Your task to perform on an android device: stop showing notifications on the lock screen Image 0: 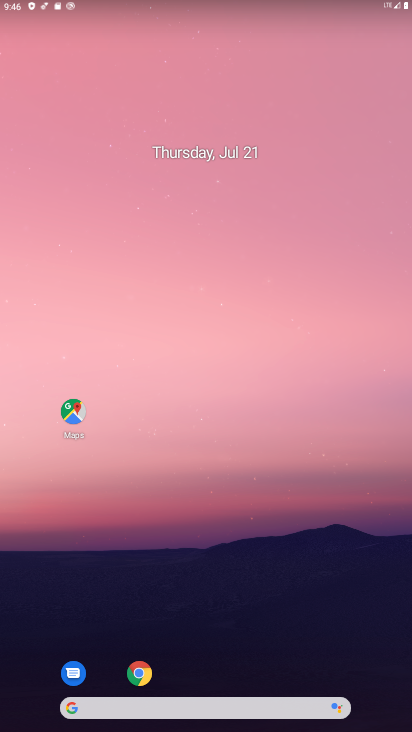
Step 0: drag from (233, 719) to (232, 208)
Your task to perform on an android device: stop showing notifications on the lock screen Image 1: 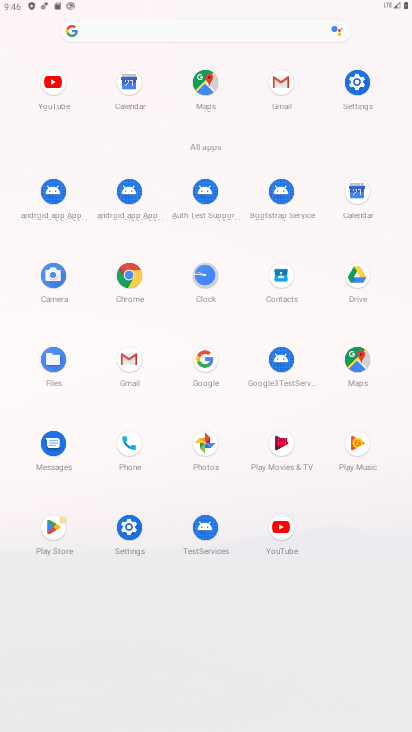
Step 1: click (126, 526)
Your task to perform on an android device: stop showing notifications on the lock screen Image 2: 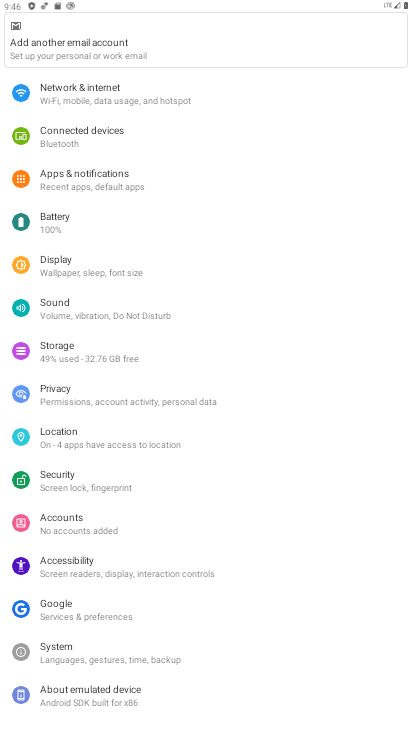
Step 2: click (87, 181)
Your task to perform on an android device: stop showing notifications on the lock screen Image 3: 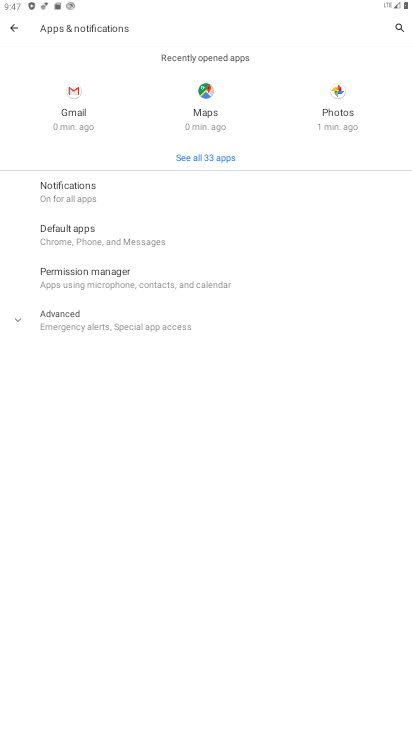
Step 3: click (68, 194)
Your task to perform on an android device: stop showing notifications on the lock screen Image 4: 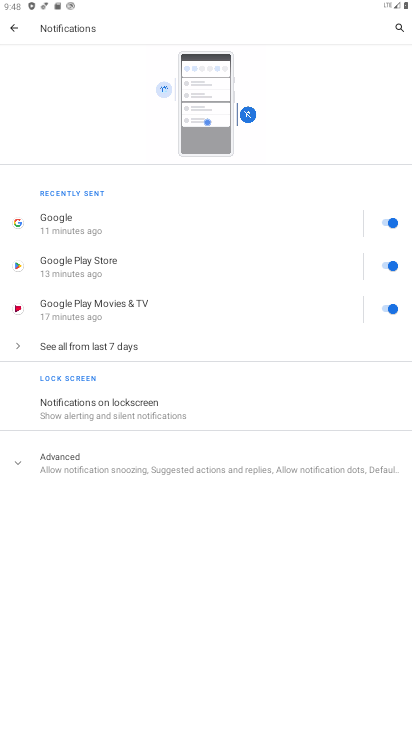
Step 4: click (109, 408)
Your task to perform on an android device: stop showing notifications on the lock screen Image 5: 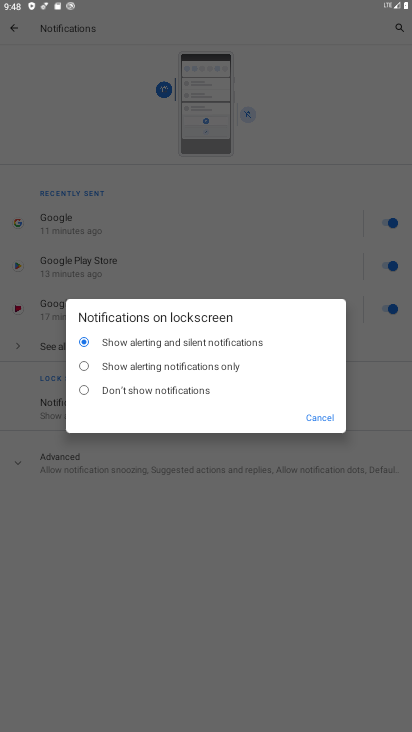
Step 5: click (87, 389)
Your task to perform on an android device: stop showing notifications on the lock screen Image 6: 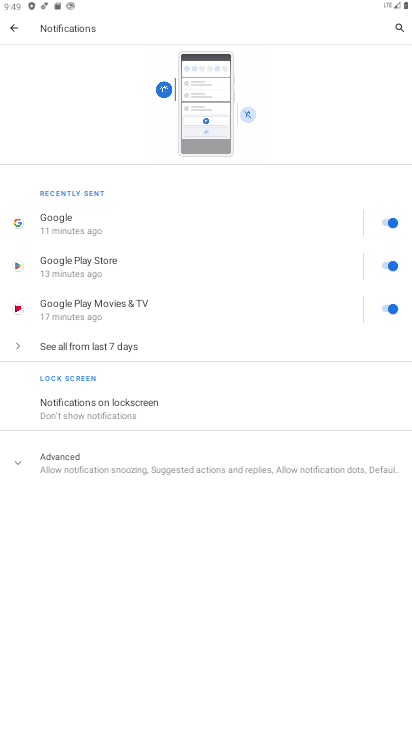
Step 6: task complete